Your task to perform on an android device: toggle data saver in the chrome app Image 0: 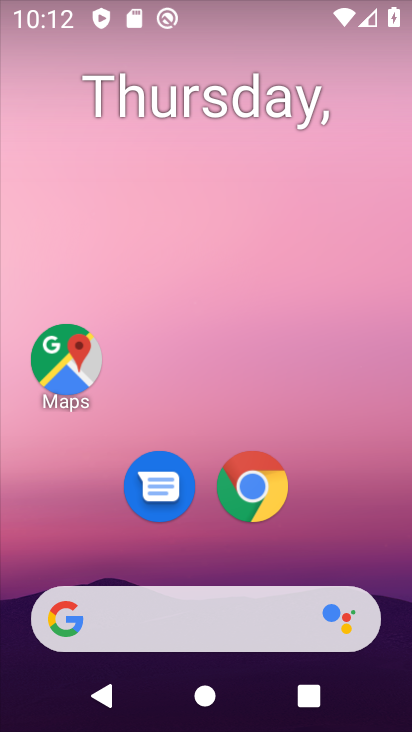
Step 0: drag from (284, 647) to (237, 169)
Your task to perform on an android device: toggle data saver in the chrome app Image 1: 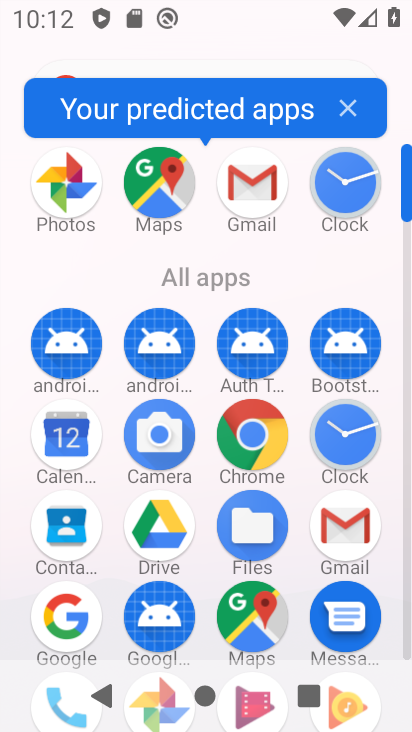
Step 1: click (256, 442)
Your task to perform on an android device: toggle data saver in the chrome app Image 2: 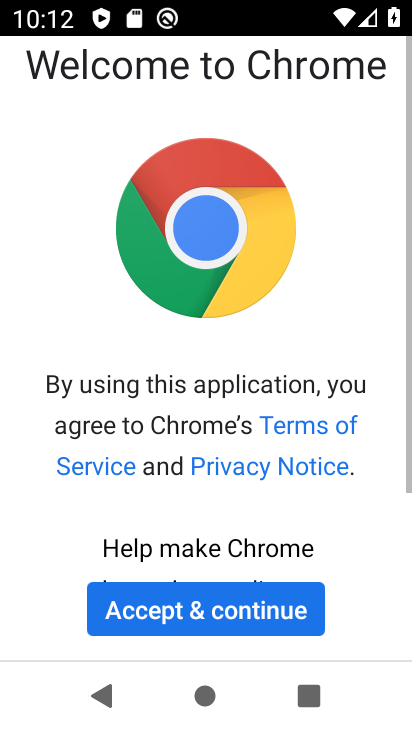
Step 2: click (256, 590)
Your task to perform on an android device: toggle data saver in the chrome app Image 3: 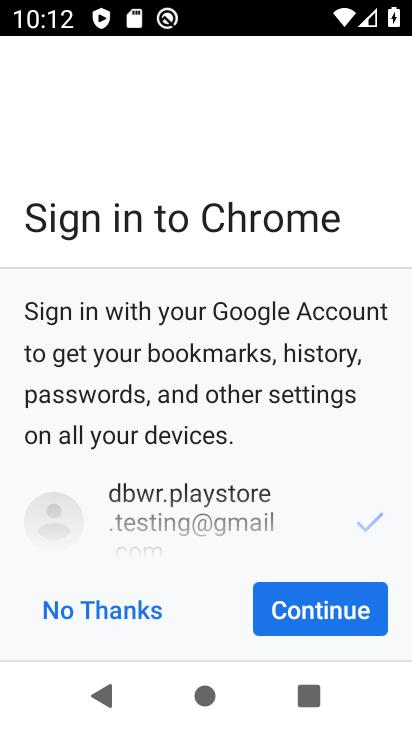
Step 3: click (353, 592)
Your task to perform on an android device: toggle data saver in the chrome app Image 4: 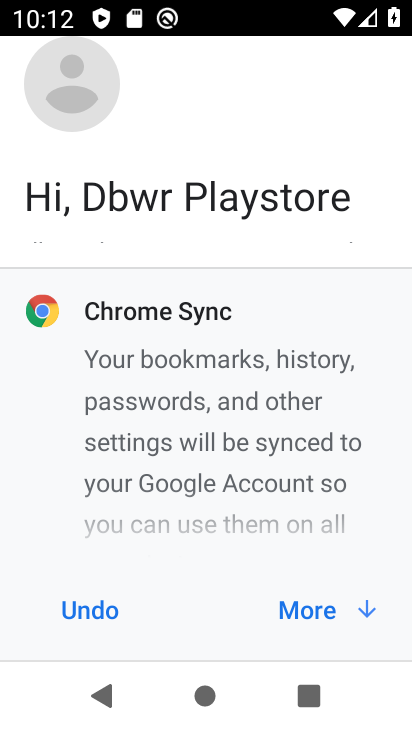
Step 4: click (371, 608)
Your task to perform on an android device: toggle data saver in the chrome app Image 5: 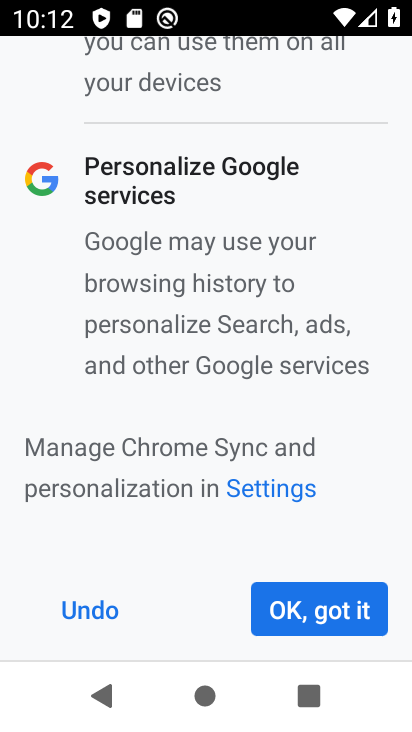
Step 5: click (368, 580)
Your task to perform on an android device: toggle data saver in the chrome app Image 6: 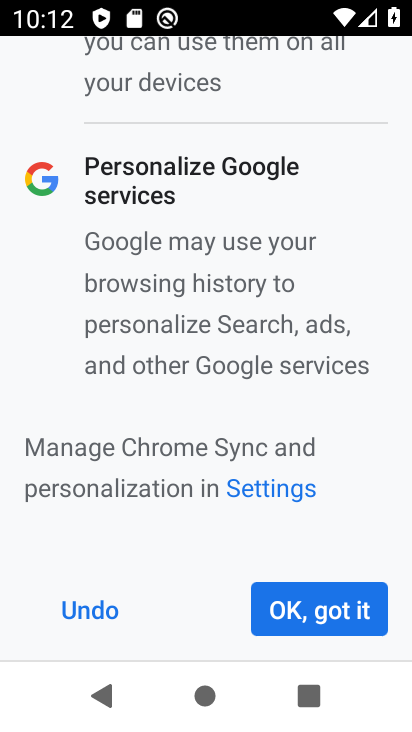
Step 6: click (353, 601)
Your task to perform on an android device: toggle data saver in the chrome app Image 7: 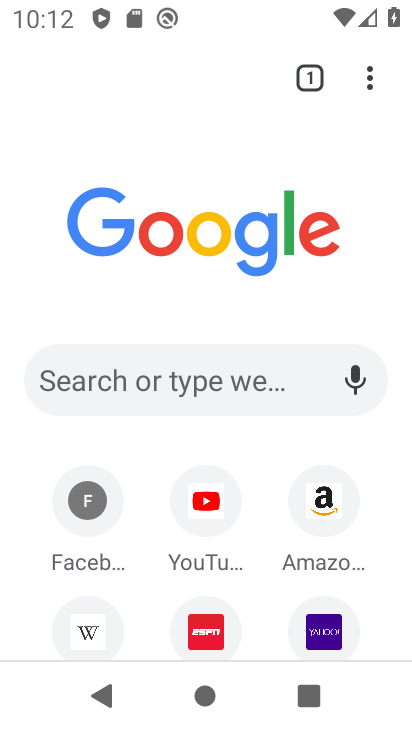
Step 7: click (351, 98)
Your task to perform on an android device: toggle data saver in the chrome app Image 8: 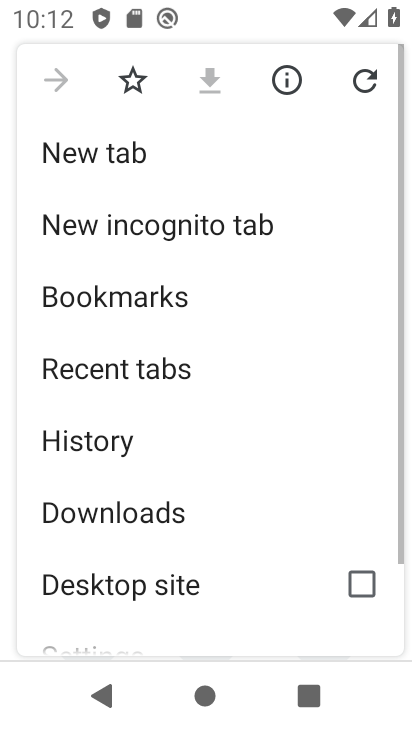
Step 8: drag from (162, 583) to (244, 325)
Your task to perform on an android device: toggle data saver in the chrome app Image 9: 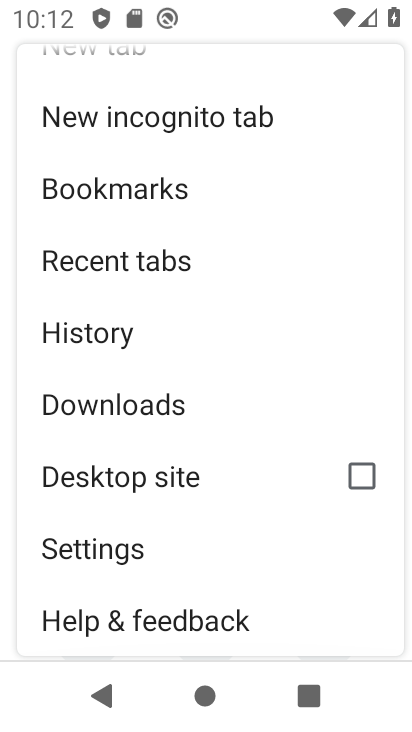
Step 9: click (152, 545)
Your task to perform on an android device: toggle data saver in the chrome app Image 10: 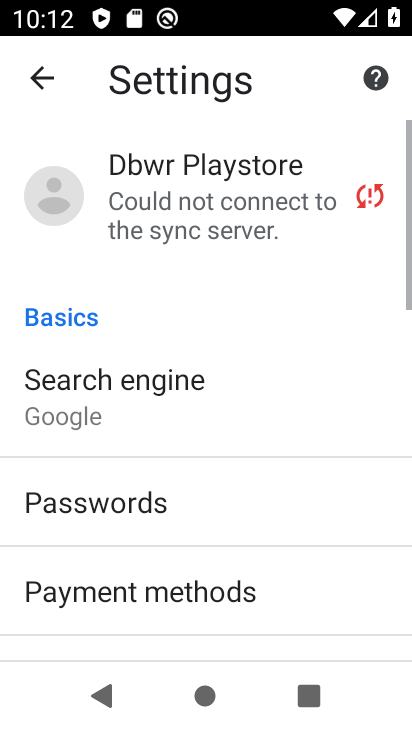
Step 10: drag from (202, 515) to (270, 183)
Your task to perform on an android device: toggle data saver in the chrome app Image 11: 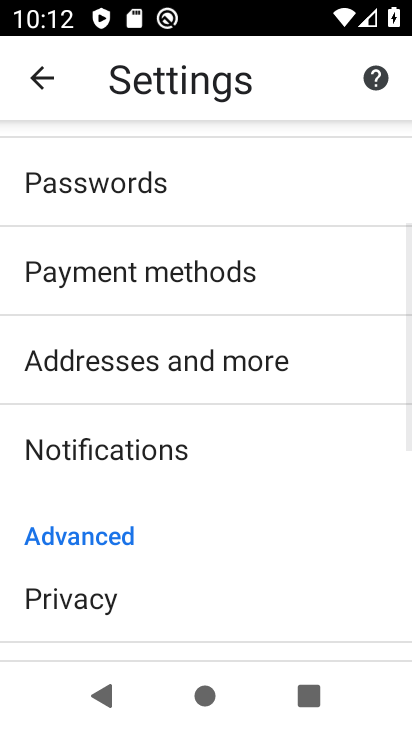
Step 11: drag from (118, 597) to (200, 284)
Your task to perform on an android device: toggle data saver in the chrome app Image 12: 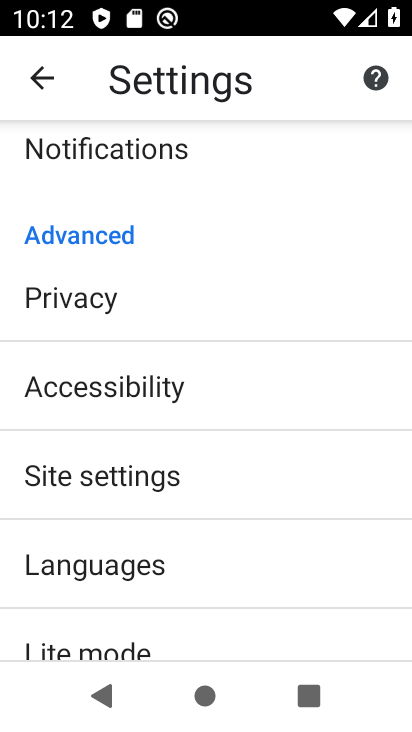
Step 12: drag from (103, 592) to (126, 539)
Your task to perform on an android device: toggle data saver in the chrome app Image 13: 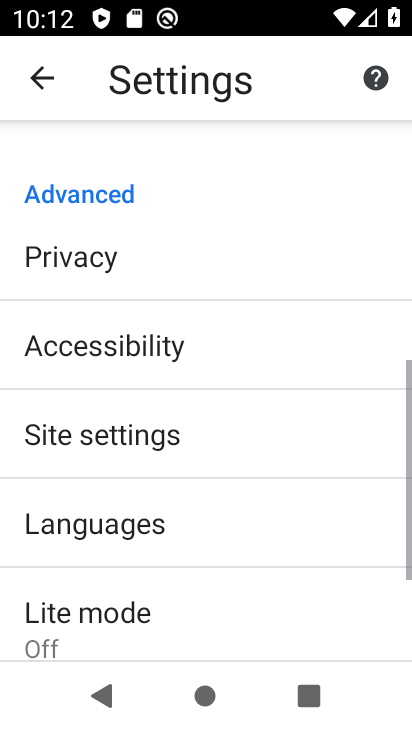
Step 13: click (105, 605)
Your task to perform on an android device: toggle data saver in the chrome app Image 14: 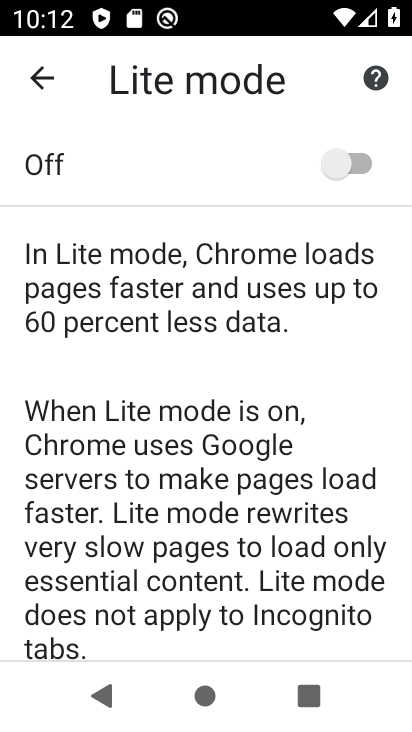
Step 14: task complete